Your task to perform on an android device: See recent photos Image 0: 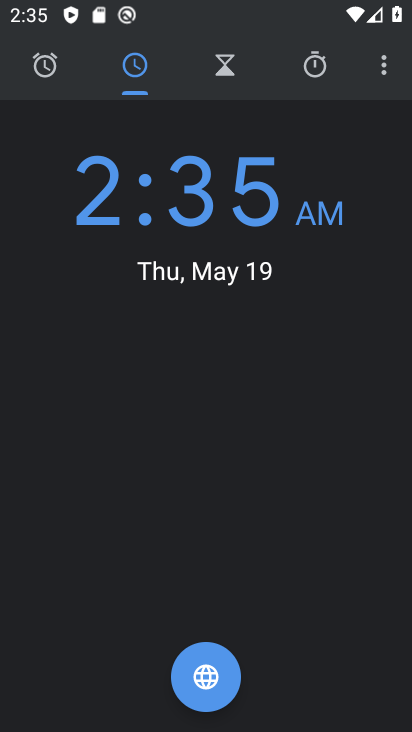
Step 0: press home button
Your task to perform on an android device: See recent photos Image 1: 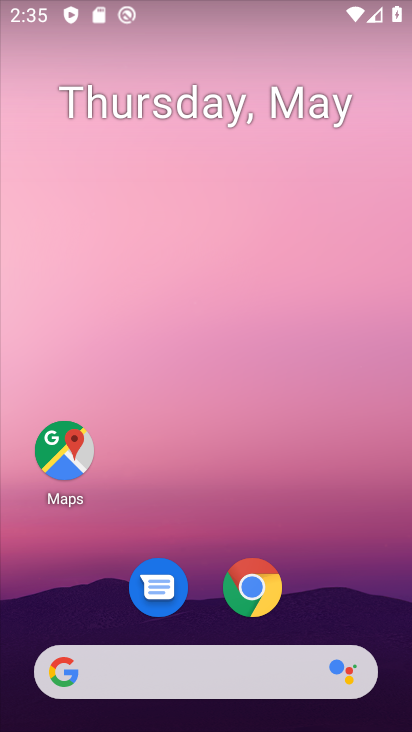
Step 1: drag from (322, 639) to (345, 24)
Your task to perform on an android device: See recent photos Image 2: 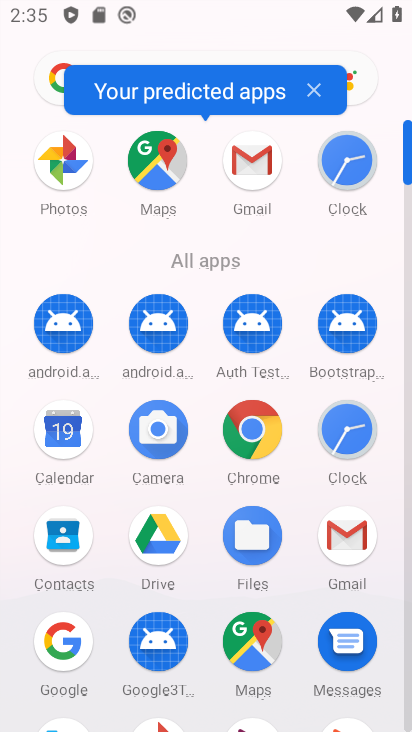
Step 2: click (65, 174)
Your task to perform on an android device: See recent photos Image 3: 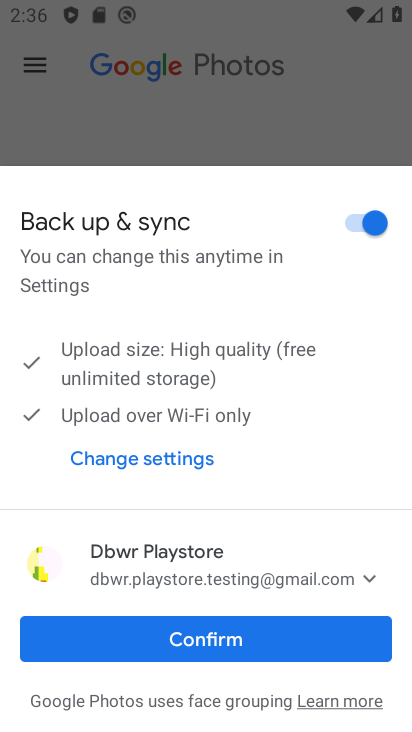
Step 3: click (217, 656)
Your task to perform on an android device: See recent photos Image 4: 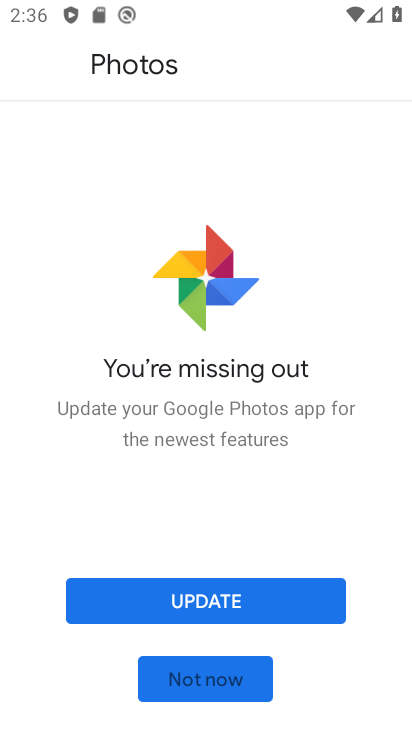
Step 4: click (203, 669)
Your task to perform on an android device: See recent photos Image 5: 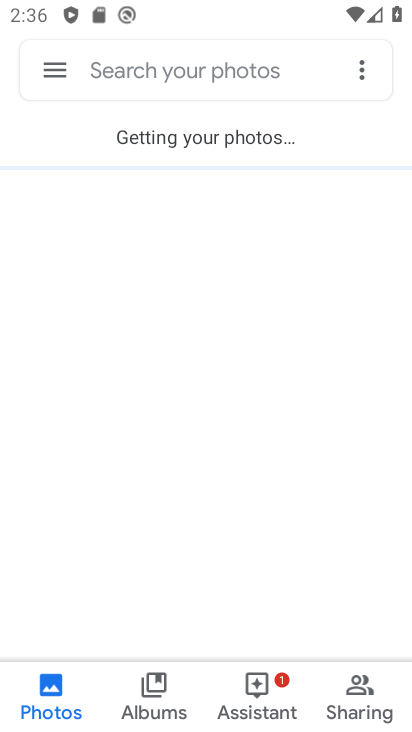
Step 5: drag from (164, 468) to (138, 184)
Your task to perform on an android device: See recent photos Image 6: 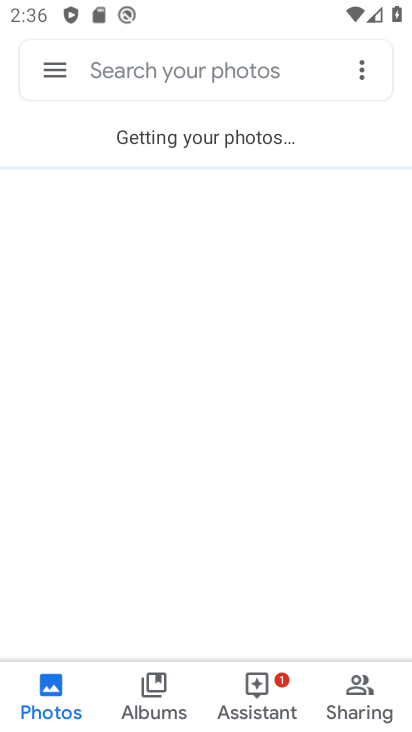
Step 6: click (151, 697)
Your task to perform on an android device: See recent photos Image 7: 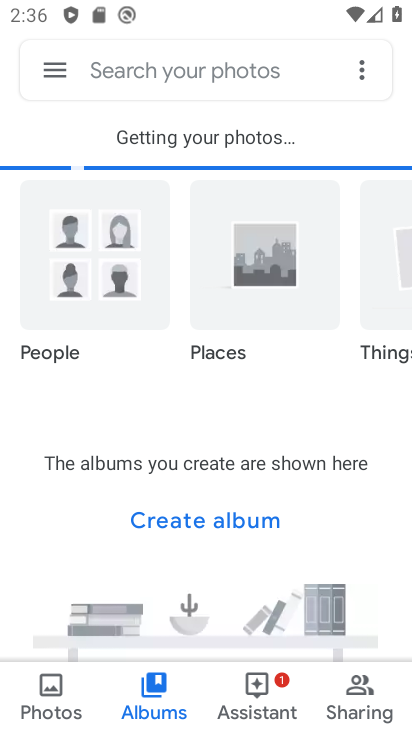
Step 7: click (37, 684)
Your task to perform on an android device: See recent photos Image 8: 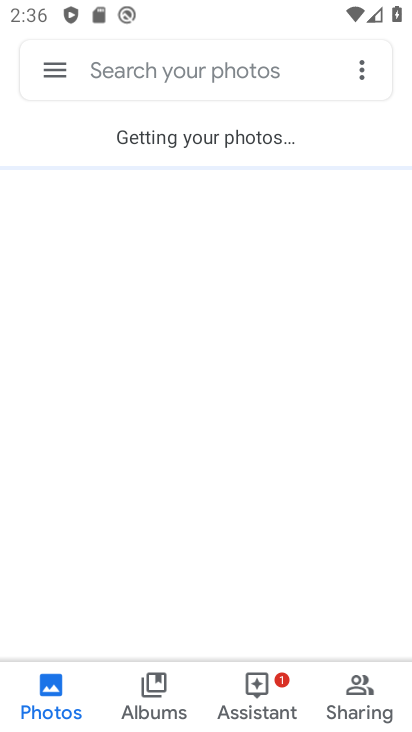
Step 8: click (182, 711)
Your task to perform on an android device: See recent photos Image 9: 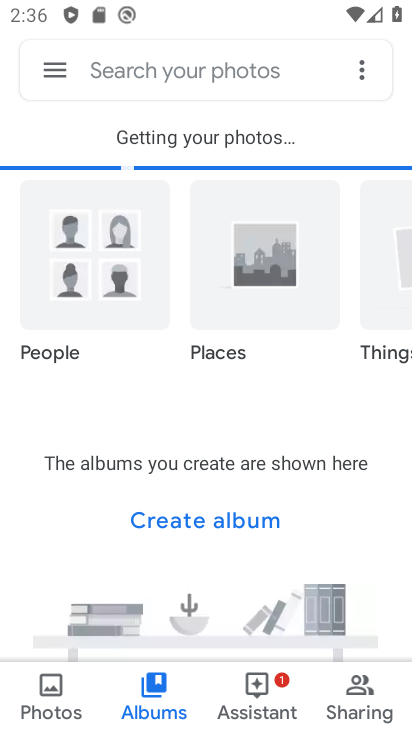
Step 9: click (63, 695)
Your task to perform on an android device: See recent photos Image 10: 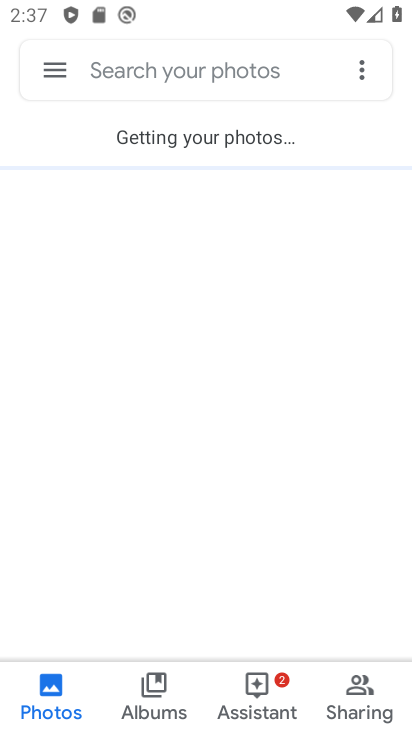
Step 10: task complete